Your task to perform on an android device: Search for hotels in London Image 0: 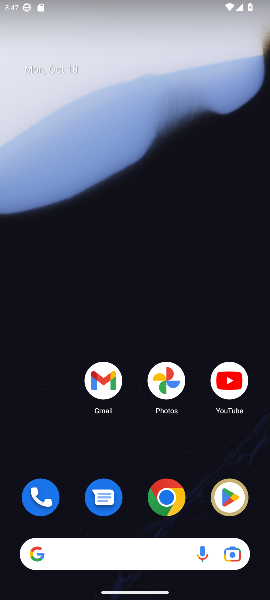
Step 0: drag from (188, 510) to (169, 188)
Your task to perform on an android device: Search for hotels in London Image 1: 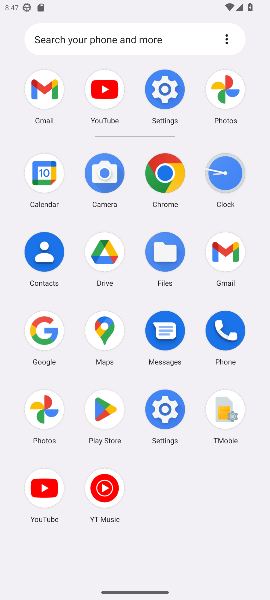
Step 1: click (37, 327)
Your task to perform on an android device: Search for hotels in London Image 2: 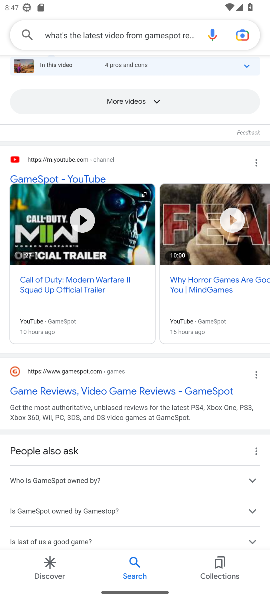
Step 2: click (133, 32)
Your task to perform on an android device: Search for hotels in London Image 3: 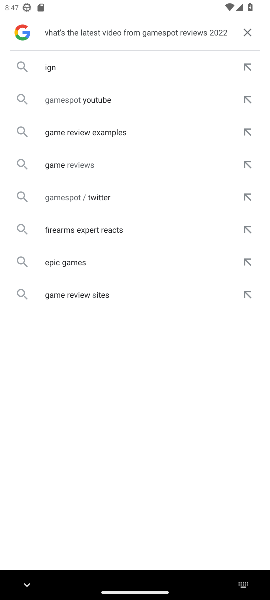
Step 3: click (243, 29)
Your task to perform on an android device: Search for hotels in London Image 4: 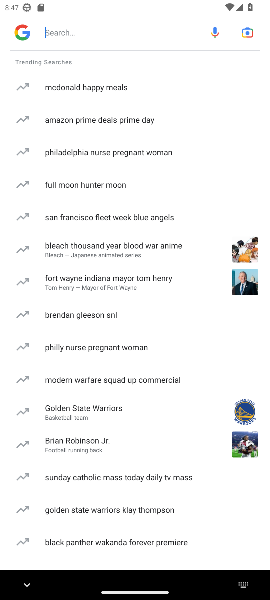
Step 4: click (87, 38)
Your task to perform on an android device: Search for hotels in London Image 5: 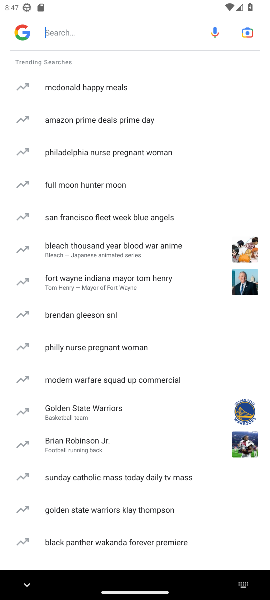
Step 5: type "Search for hotels in London"
Your task to perform on an android device: Search for hotels in London Image 6: 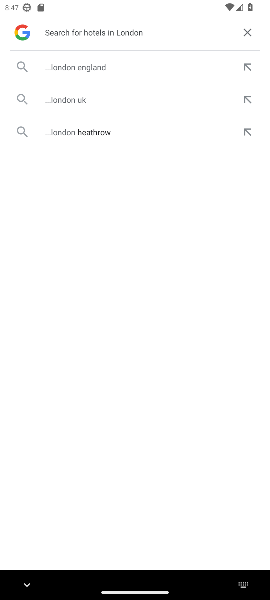
Step 6: click (87, 72)
Your task to perform on an android device: Search for hotels in London Image 7: 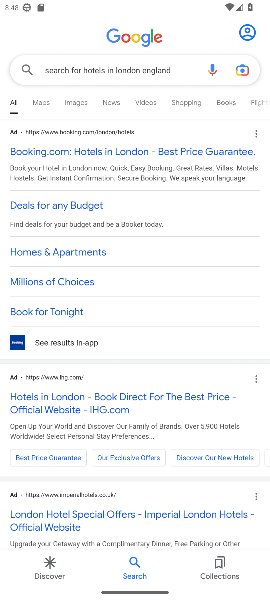
Step 7: click (97, 398)
Your task to perform on an android device: Search for hotels in London Image 8: 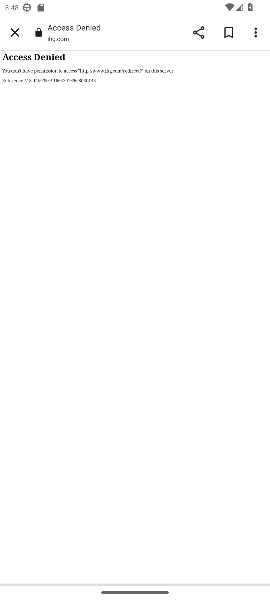
Step 8: press back button
Your task to perform on an android device: Search for hotels in London Image 9: 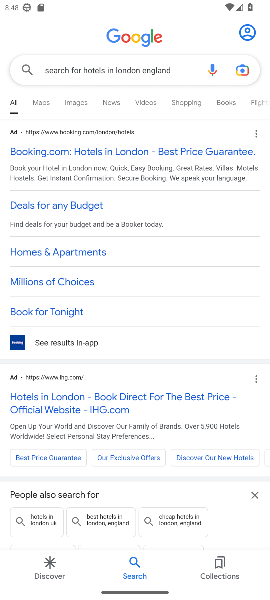
Step 9: click (88, 149)
Your task to perform on an android device: Search for hotels in London Image 10: 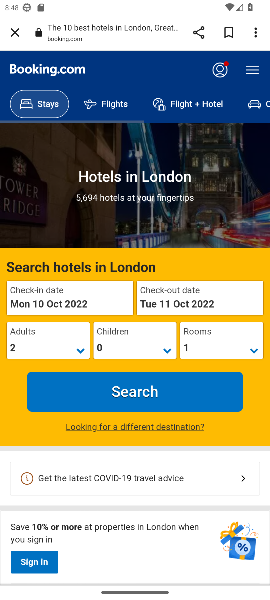
Step 10: click (123, 399)
Your task to perform on an android device: Search for hotels in London Image 11: 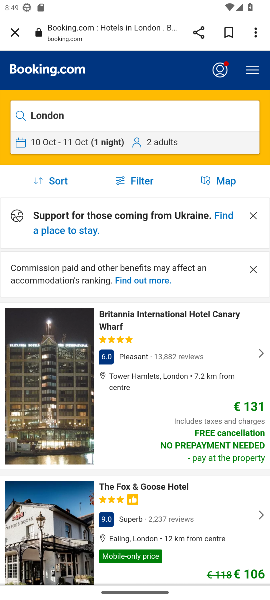
Step 11: task complete